Your task to perform on an android device: check data usage Image 0: 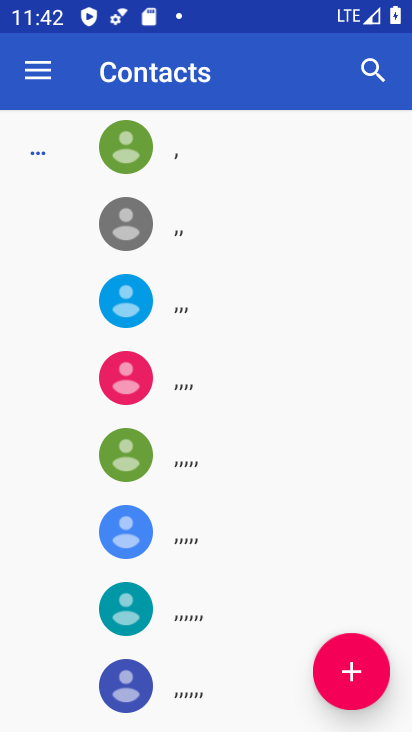
Step 0: press home button
Your task to perform on an android device: check data usage Image 1: 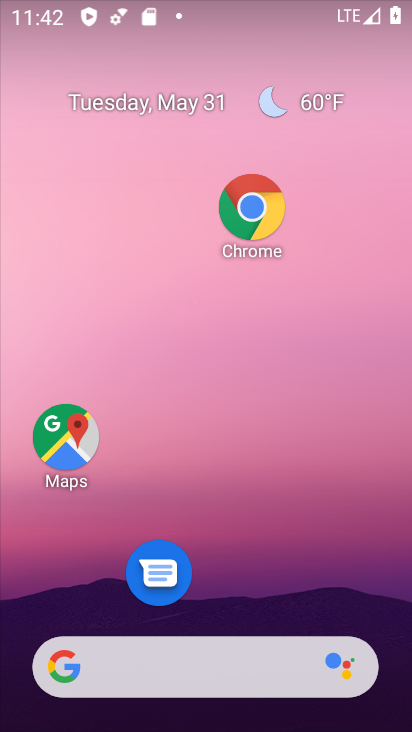
Step 1: drag from (223, 603) to (216, 90)
Your task to perform on an android device: check data usage Image 2: 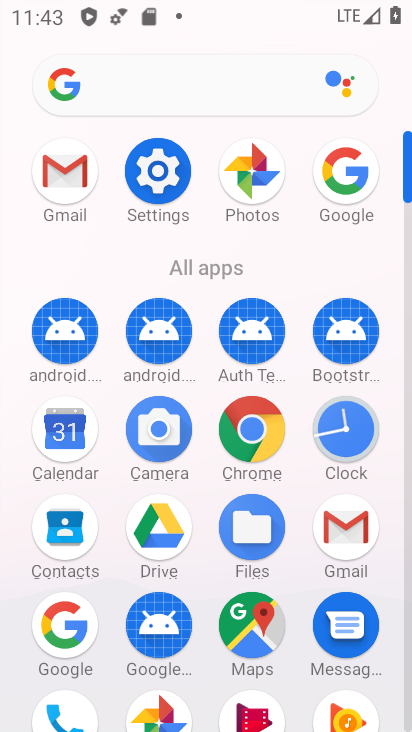
Step 2: click (172, 185)
Your task to perform on an android device: check data usage Image 3: 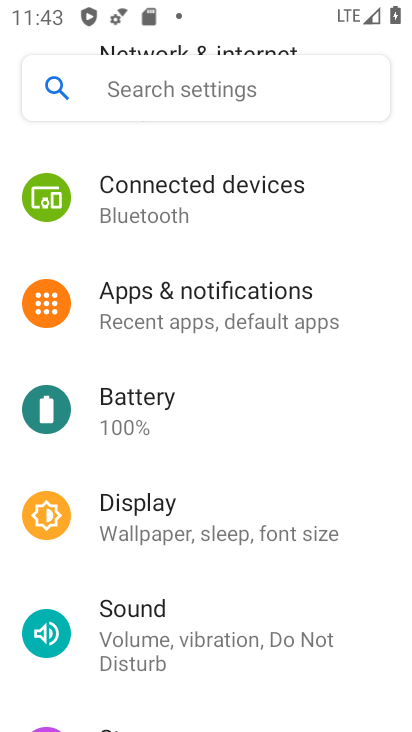
Step 3: drag from (225, 218) to (240, 541)
Your task to perform on an android device: check data usage Image 4: 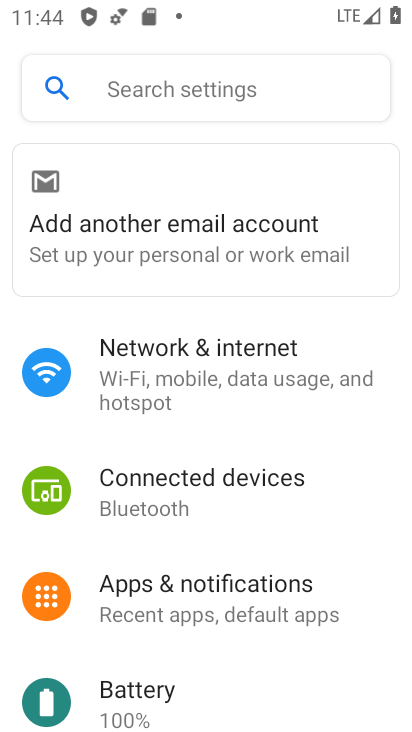
Step 4: click (209, 392)
Your task to perform on an android device: check data usage Image 5: 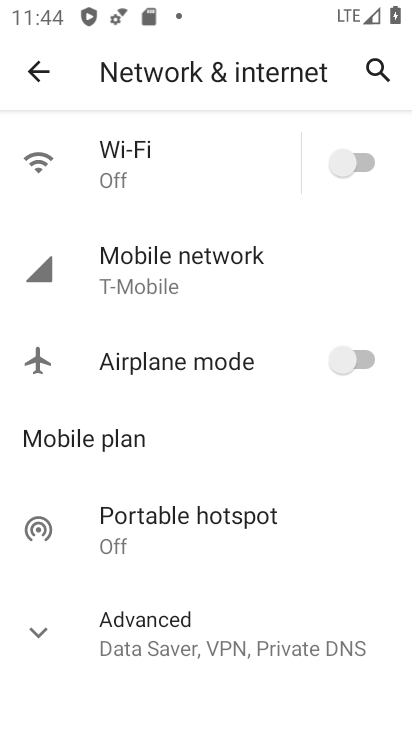
Step 5: click (222, 257)
Your task to perform on an android device: check data usage Image 6: 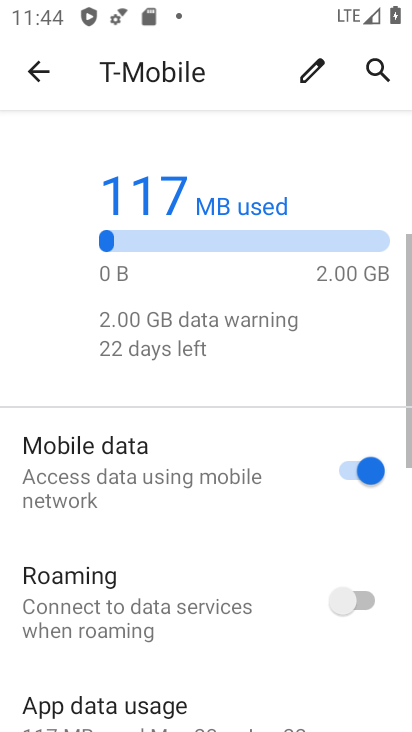
Step 6: drag from (204, 595) to (200, 334)
Your task to perform on an android device: check data usage Image 7: 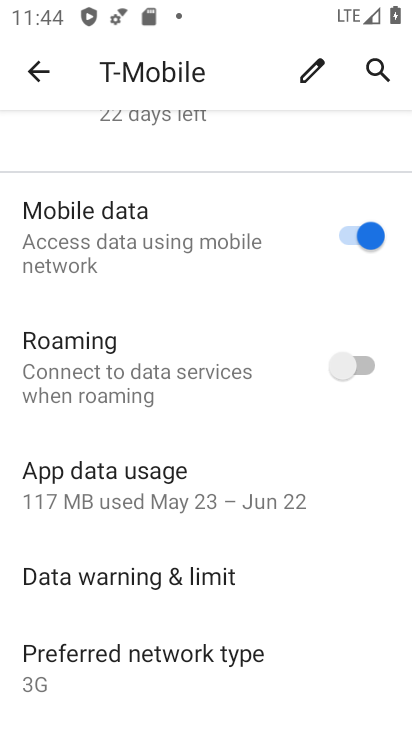
Step 7: click (184, 509)
Your task to perform on an android device: check data usage Image 8: 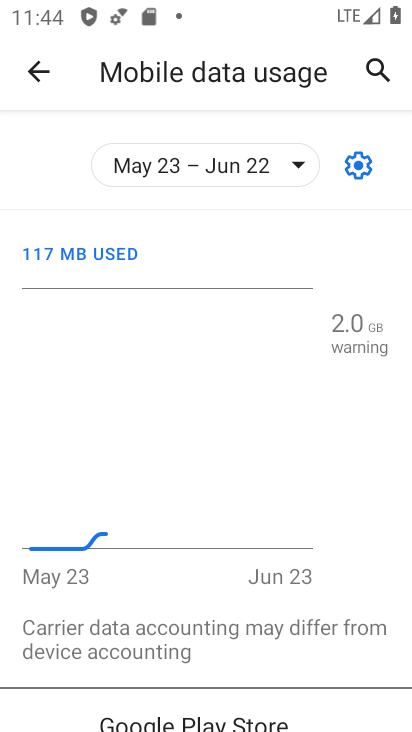
Step 8: task complete